Your task to perform on an android device: Play the last video I watched on Youtube Image 0: 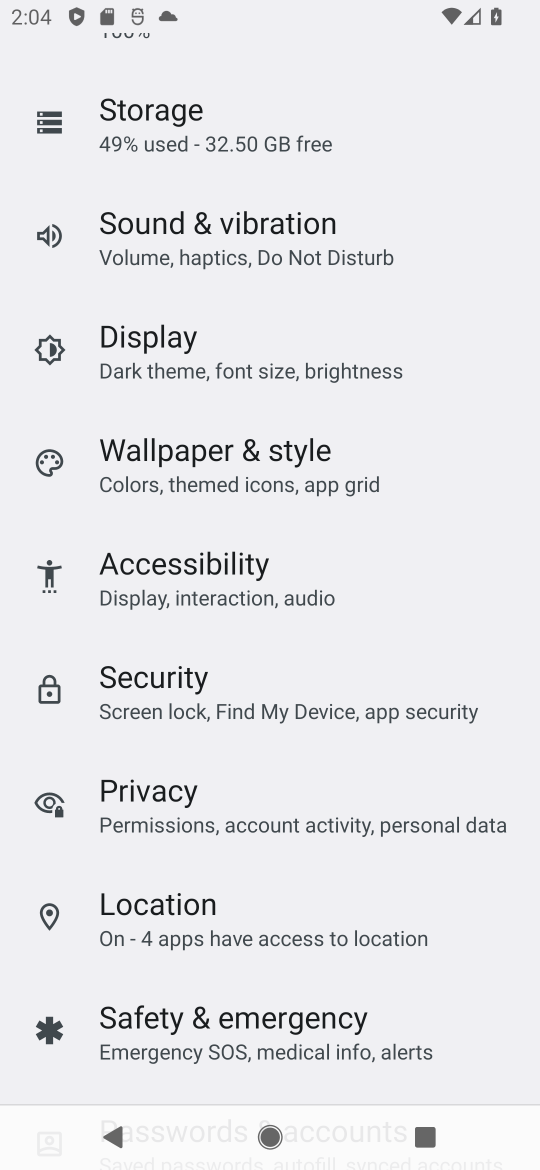
Step 0: press home button
Your task to perform on an android device: Play the last video I watched on Youtube Image 1: 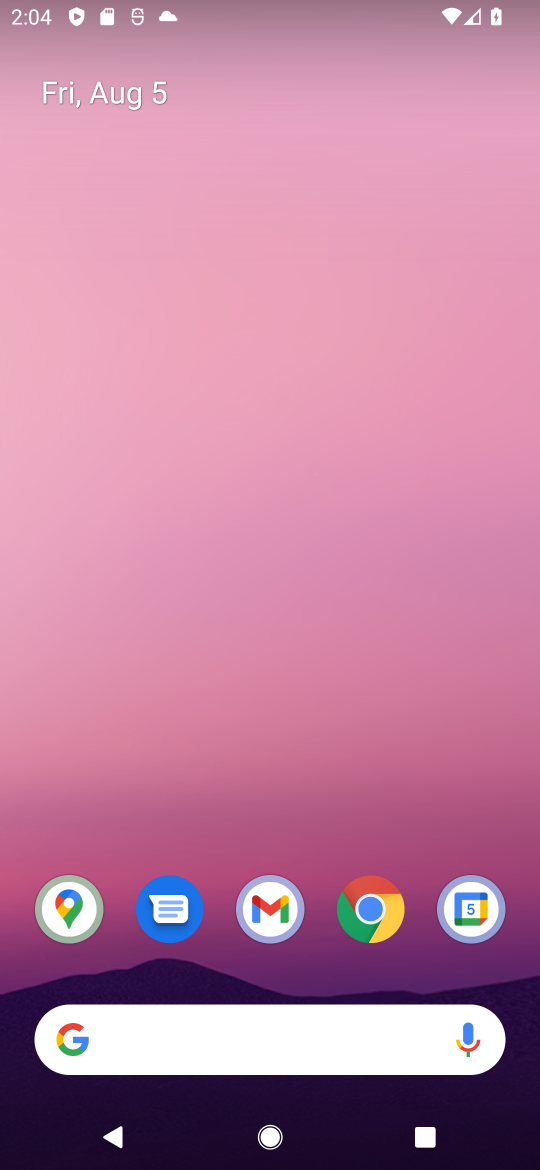
Step 1: drag from (210, 996) to (125, 247)
Your task to perform on an android device: Play the last video I watched on Youtube Image 2: 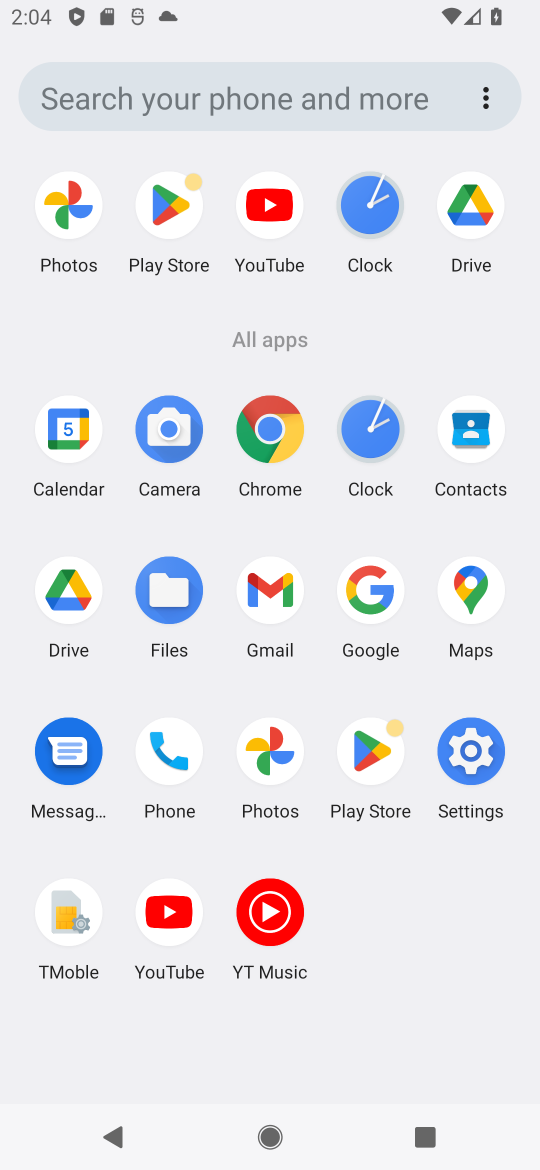
Step 2: click (191, 928)
Your task to perform on an android device: Play the last video I watched on Youtube Image 3: 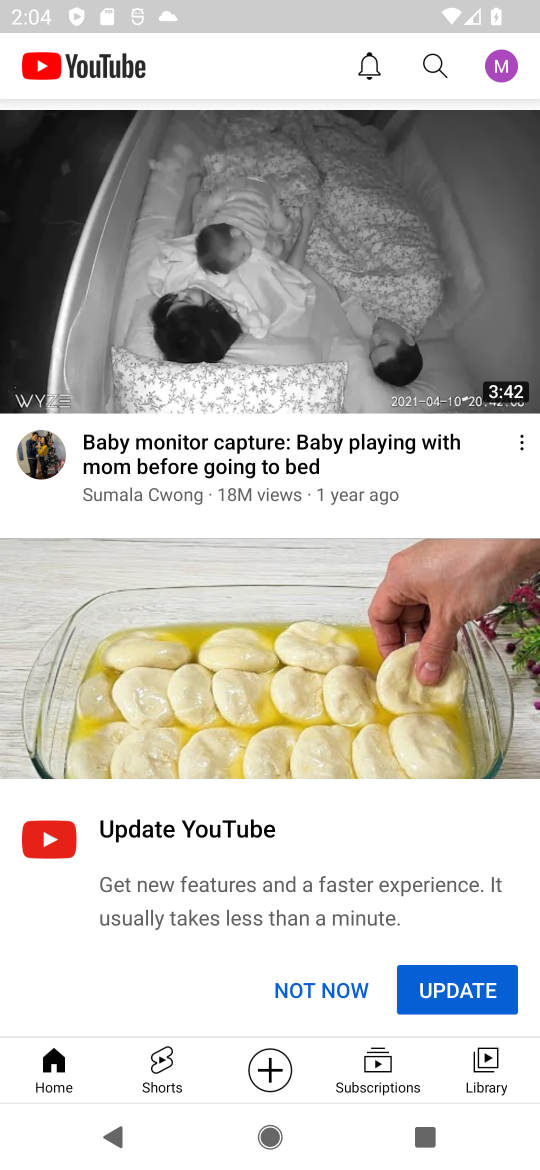
Step 3: click (489, 1078)
Your task to perform on an android device: Play the last video I watched on Youtube Image 4: 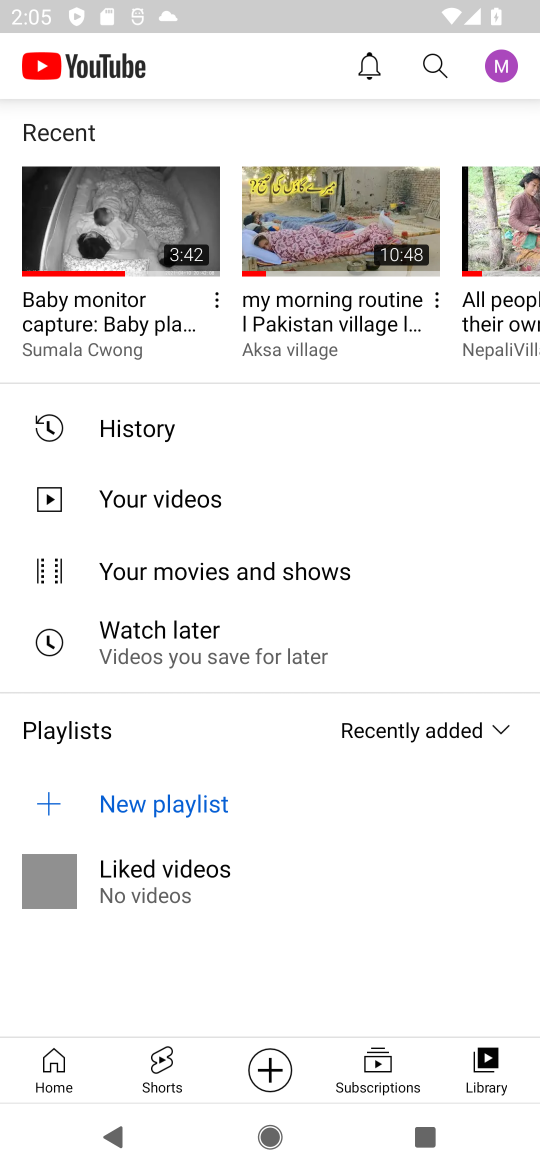
Step 4: task complete